Your task to perform on an android device: Go to privacy settings Image 0: 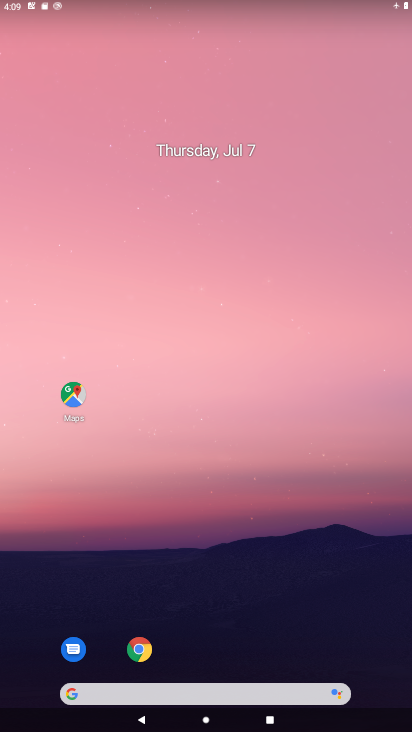
Step 0: drag from (369, 671) to (317, 181)
Your task to perform on an android device: Go to privacy settings Image 1: 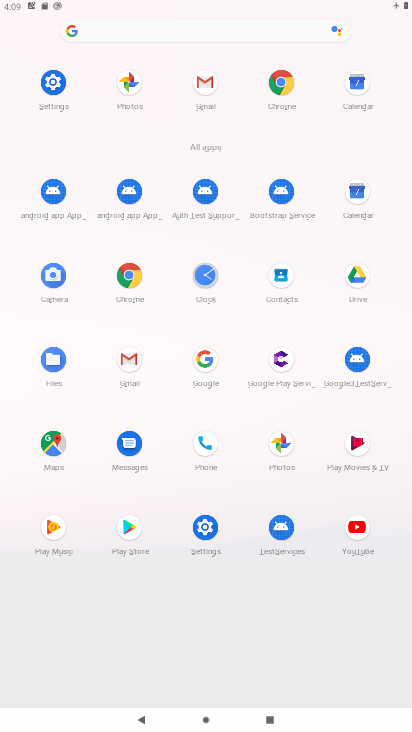
Step 1: click (204, 529)
Your task to perform on an android device: Go to privacy settings Image 2: 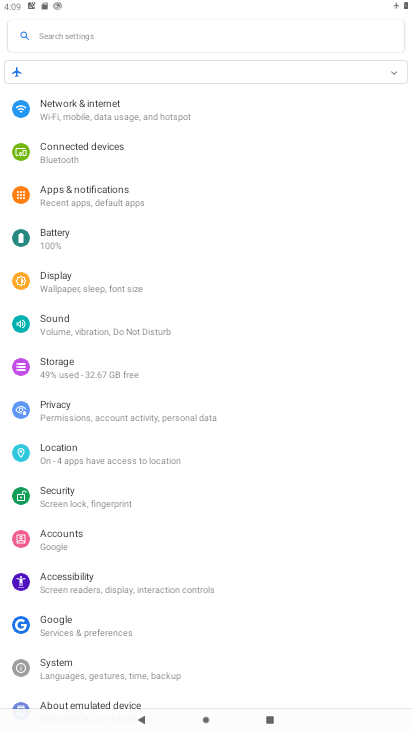
Step 2: click (54, 415)
Your task to perform on an android device: Go to privacy settings Image 3: 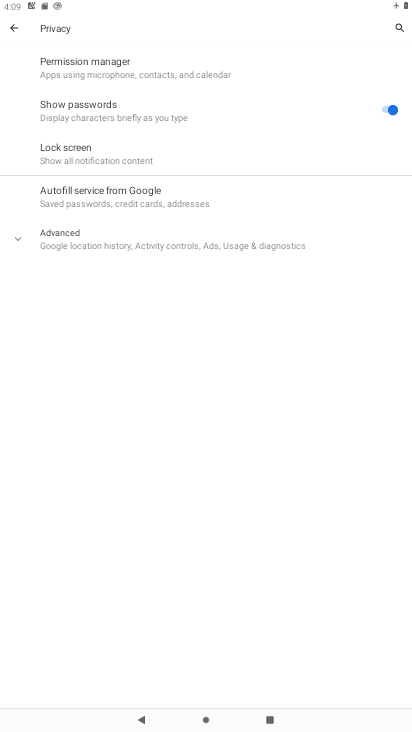
Step 3: click (15, 244)
Your task to perform on an android device: Go to privacy settings Image 4: 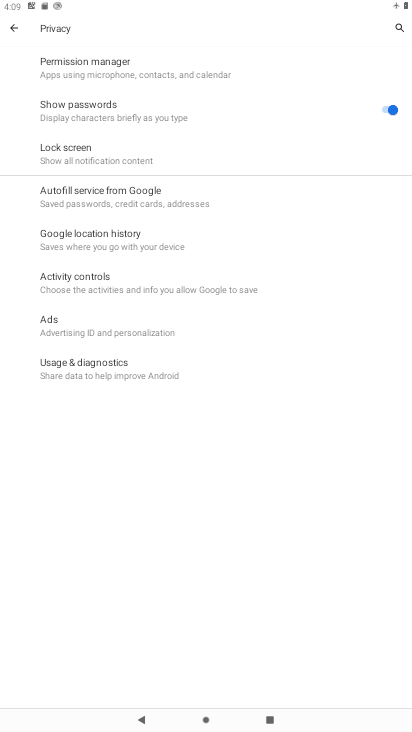
Step 4: task complete